Your task to perform on an android device: Show me popular games on the Play Store Image 0: 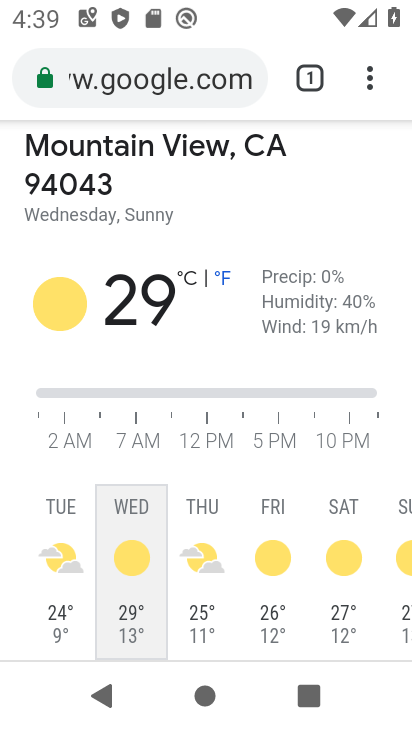
Step 0: press home button
Your task to perform on an android device: Show me popular games on the Play Store Image 1: 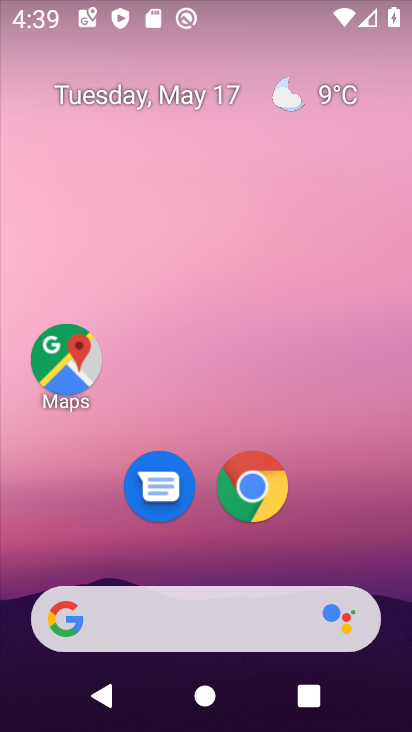
Step 1: drag from (363, 556) to (194, 102)
Your task to perform on an android device: Show me popular games on the Play Store Image 2: 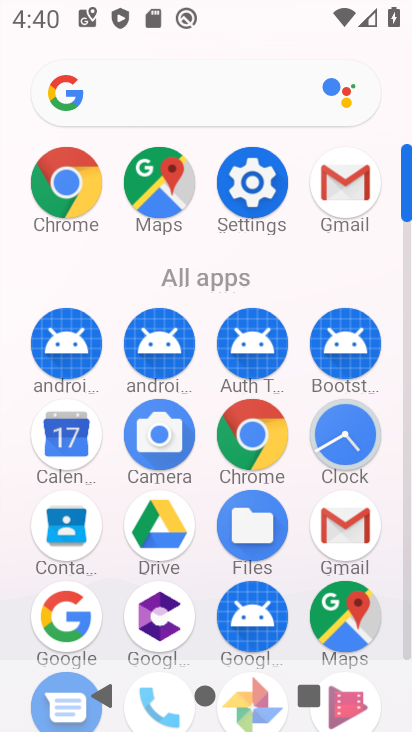
Step 2: click (408, 652)
Your task to perform on an android device: Show me popular games on the Play Store Image 3: 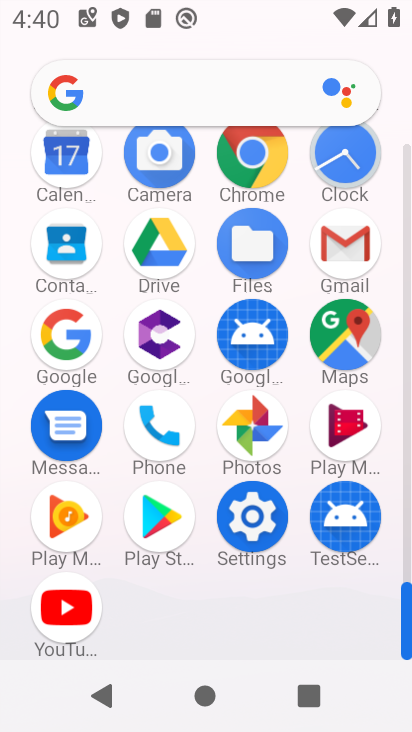
Step 3: click (176, 529)
Your task to perform on an android device: Show me popular games on the Play Store Image 4: 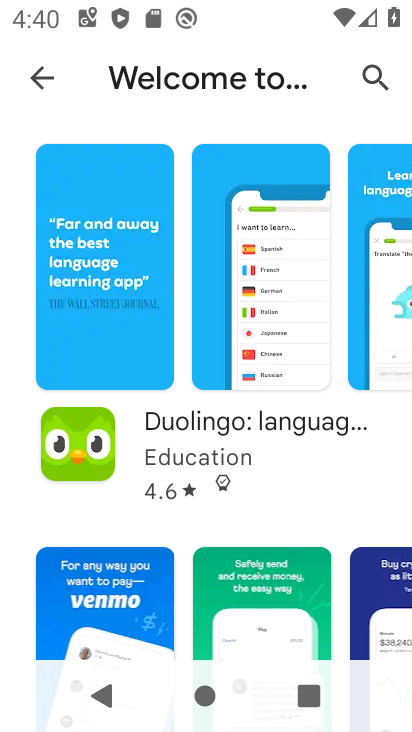
Step 4: task complete